Your task to perform on an android device: Open Google Maps and go to "Timeline" Image 0: 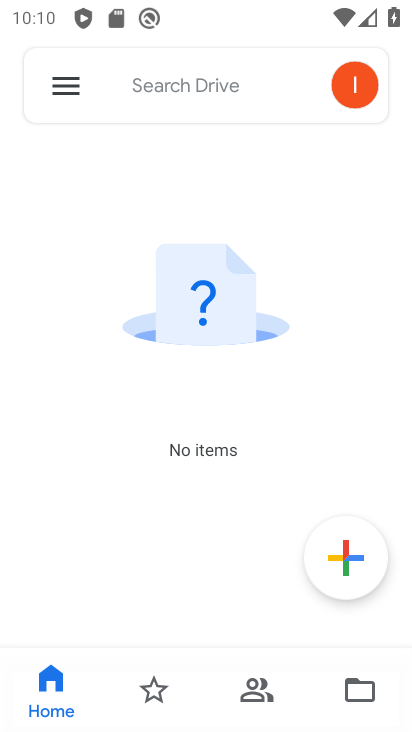
Step 0: press back button
Your task to perform on an android device: Open Google Maps and go to "Timeline" Image 1: 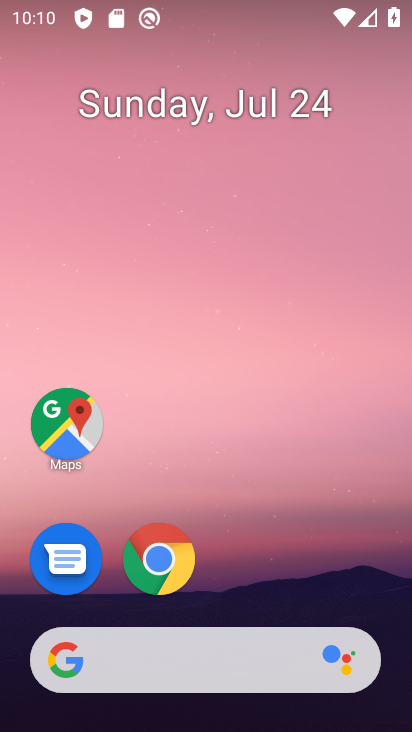
Step 1: click (38, 399)
Your task to perform on an android device: Open Google Maps and go to "Timeline" Image 2: 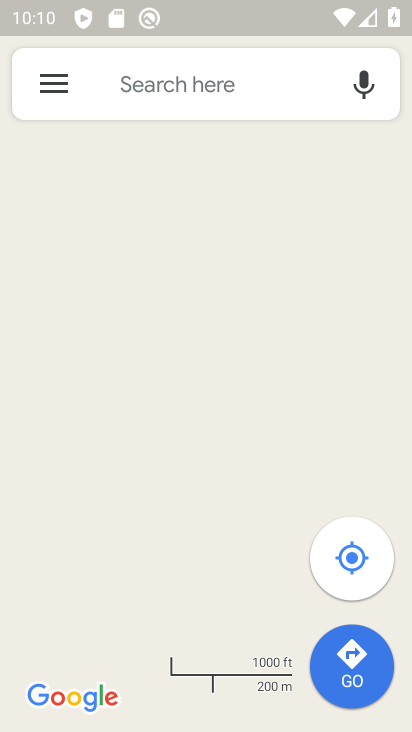
Step 2: click (40, 87)
Your task to perform on an android device: Open Google Maps and go to "Timeline" Image 3: 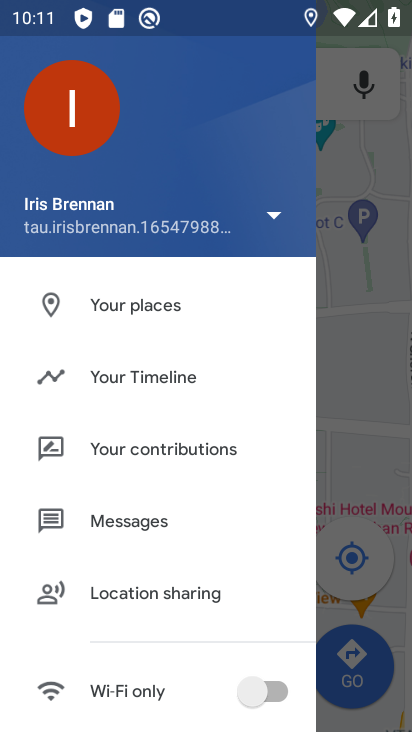
Step 3: click (62, 367)
Your task to perform on an android device: Open Google Maps and go to "Timeline" Image 4: 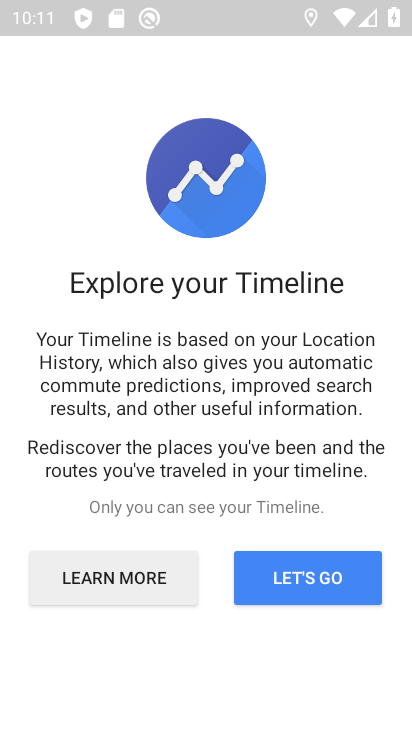
Step 4: task complete